Your task to perform on an android device: Go to accessibility settings Image 0: 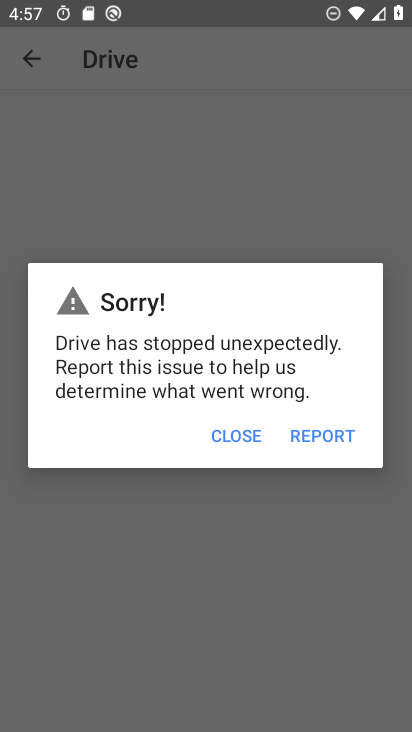
Step 0: click (237, 429)
Your task to perform on an android device: Go to accessibility settings Image 1: 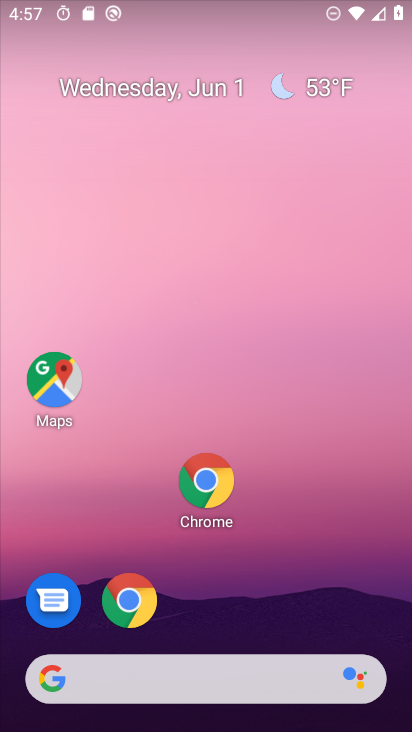
Step 1: drag from (276, 684) to (168, 191)
Your task to perform on an android device: Go to accessibility settings Image 2: 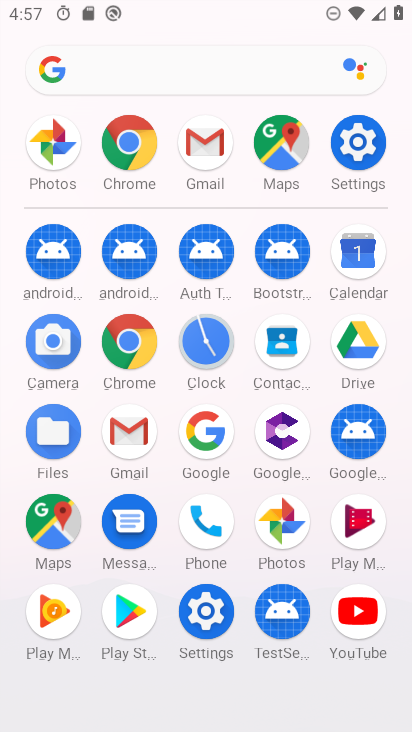
Step 2: click (346, 153)
Your task to perform on an android device: Go to accessibility settings Image 3: 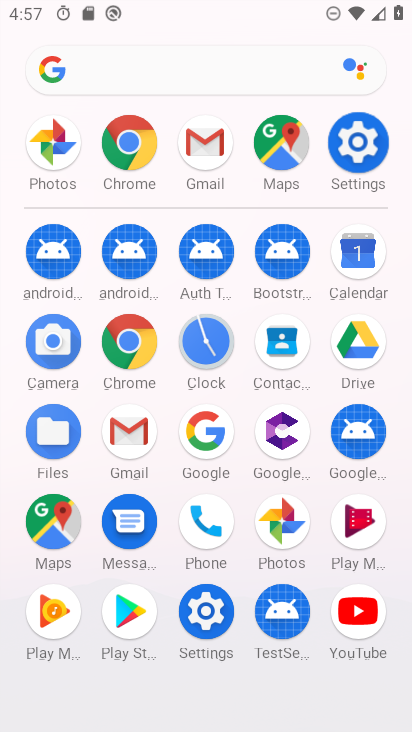
Step 3: click (346, 153)
Your task to perform on an android device: Go to accessibility settings Image 4: 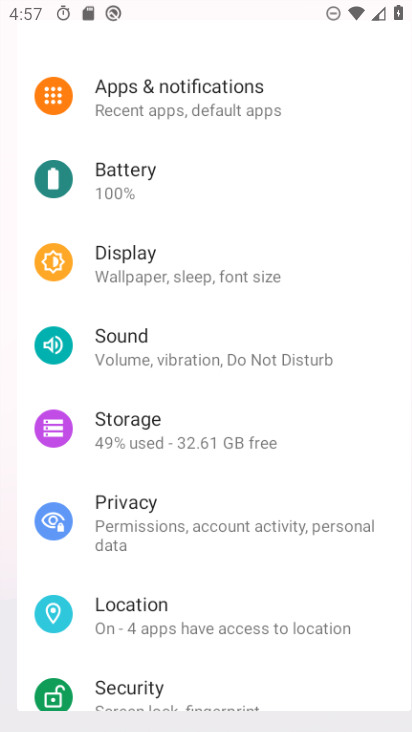
Step 4: click (351, 146)
Your task to perform on an android device: Go to accessibility settings Image 5: 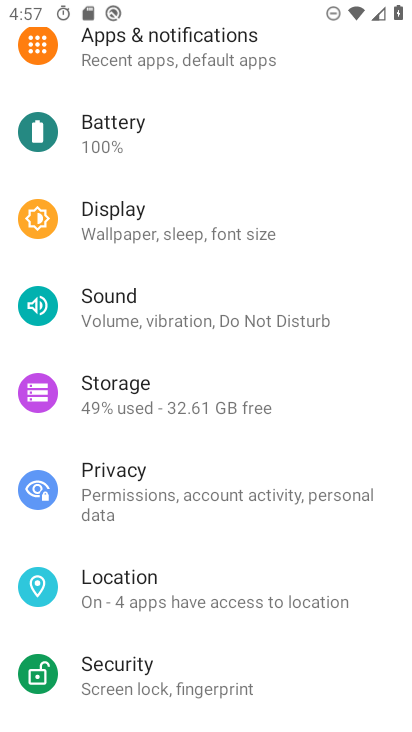
Step 5: click (351, 146)
Your task to perform on an android device: Go to accessibility settings Image 6: 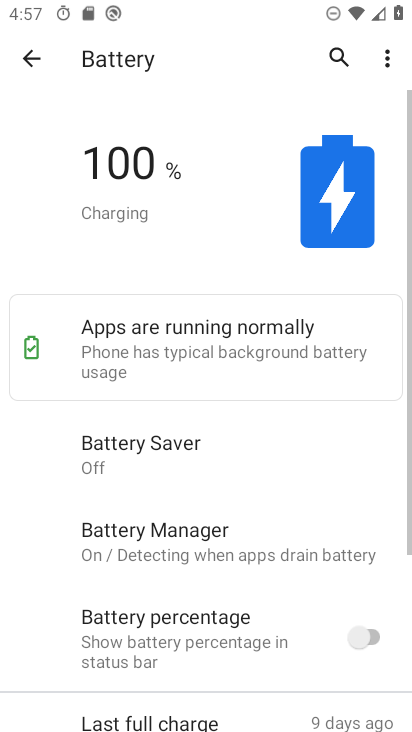
Step 6: click (29, 58)
Your task to perform on an android device: Go to accessibility settings Image 7: 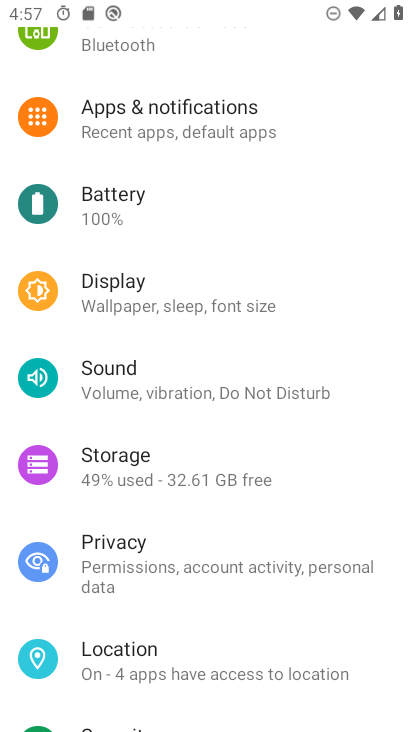
Step 7: click (169, 122)
Your task to perform on an android device: Go to accessibility settings Image 8: 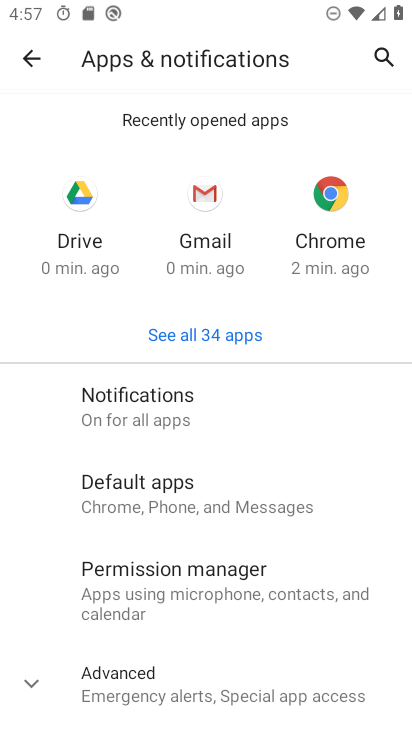
Step 8: click (24, 53)
Your task to perform on an android device: Go to accessibility settings Image 9: 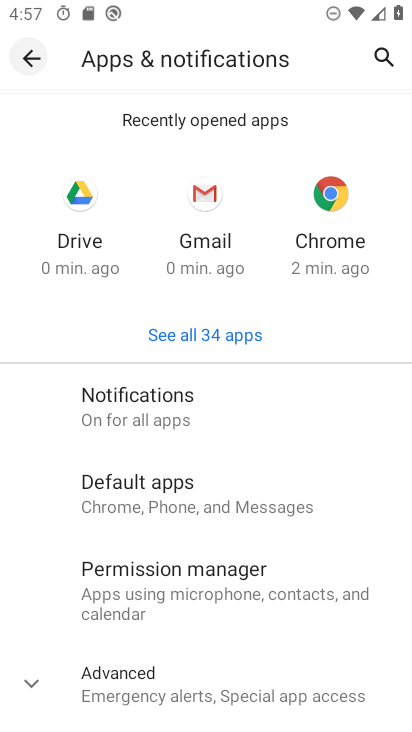
Step 9: click (24, 54)
Your task to perform on an android device: Go to accessibility settings Image 10: 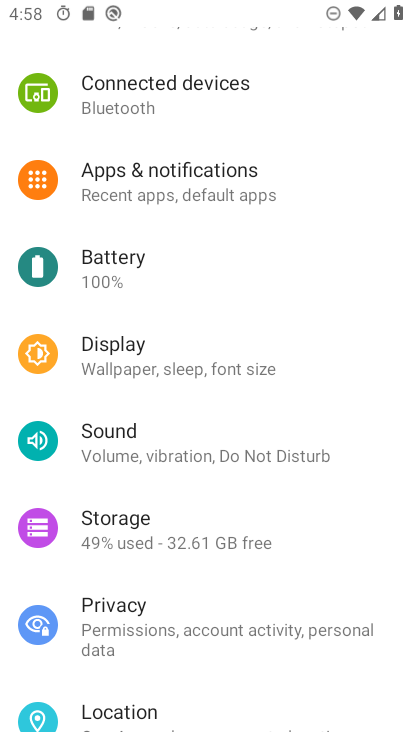
Step 10: drag from (205, 479) to (139, 67)
Your task to perform on an android device: Go to accessibility settings Image 11: 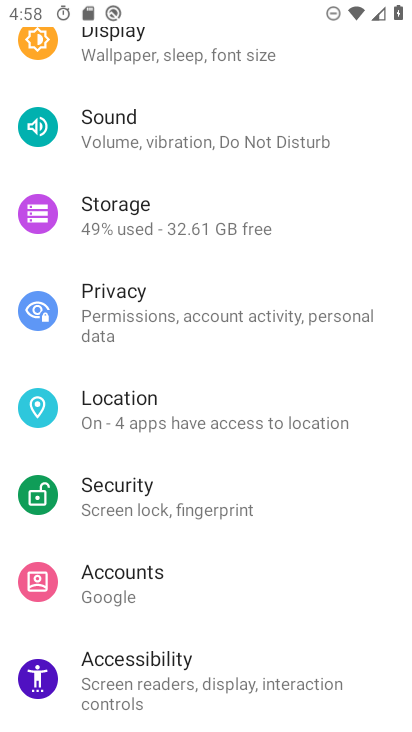
Step 11: drag from (165, 555) to (82, 193)
Your task to perform on an android device: Go to accessibility settings Image 12: 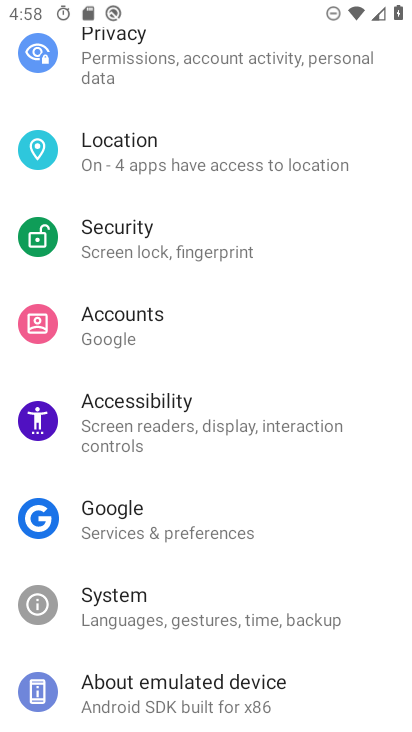
Step 12: drag from (209, 520) to (122, 202)
Your task to perform on an android device: Go to accessibility settings Image 13: 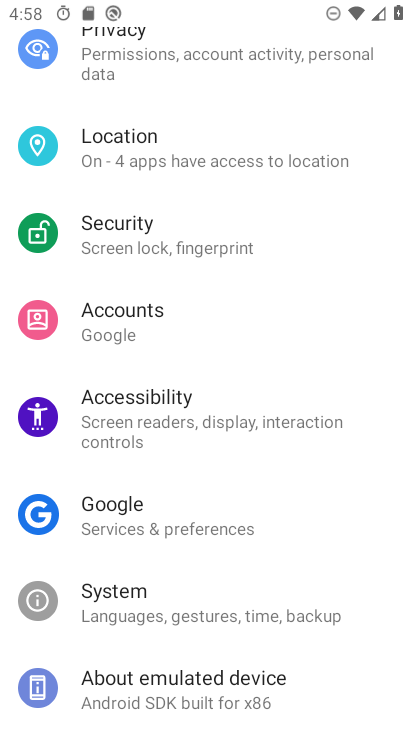
Step 13: click (124, 431)
Your task to perform on an android device: Go to accessibility settings Image 14: 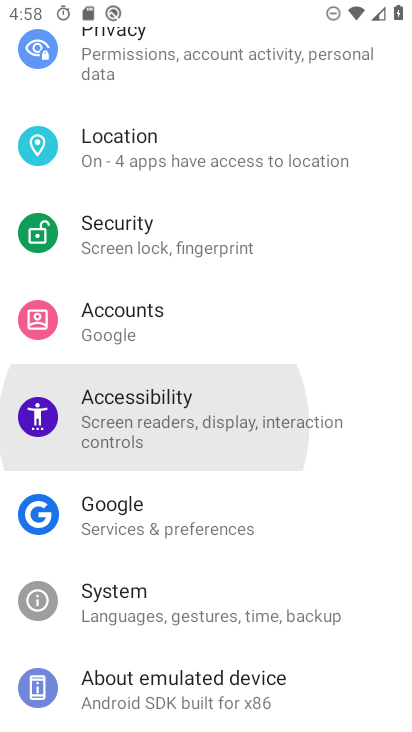
Step 14: click (123, 430)
Your task to perform on an android device: Go to accessibility settings Image 15: 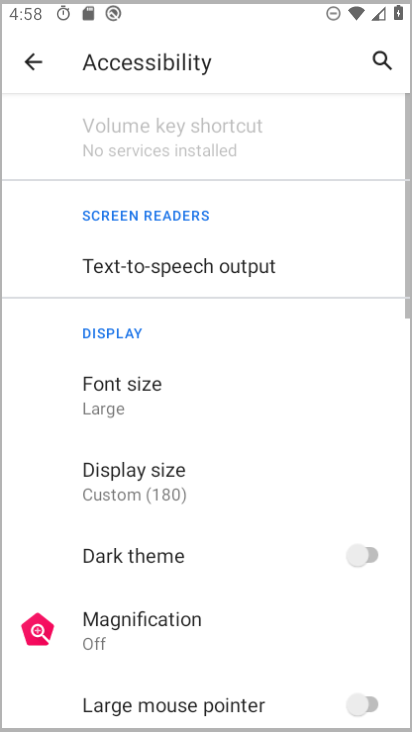
Step 15: click (115, 450)
Your task to perform on an android device: Go to accessibility settings Image 16: 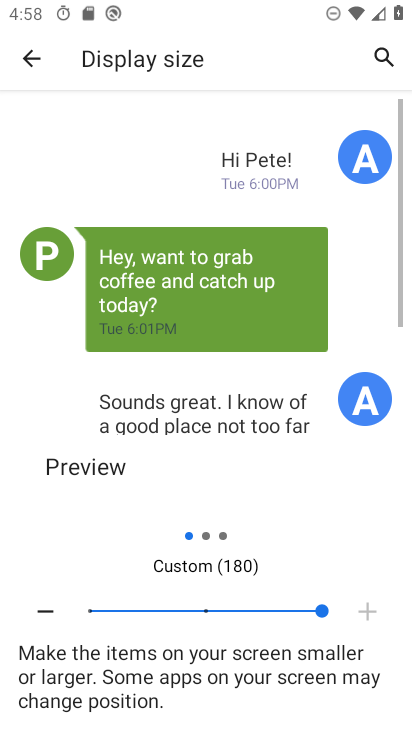
Step 16: drag from (231, 563) to (172, 230)
Your task to perform on an android device: Go to accessibility settings Image 17: 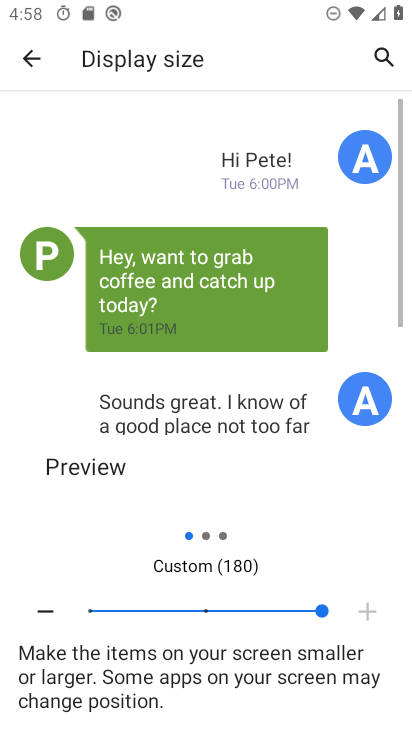
Step 17: drag from (274, 589) to (238, 232)
Your task to perform on an android device: Go to accessibility settings Image 18: 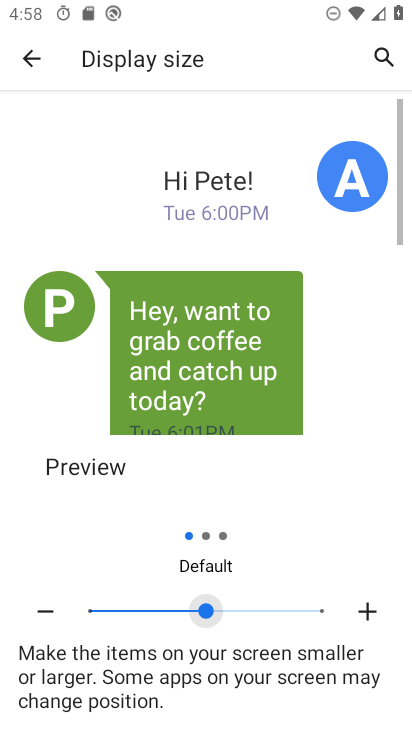
Step 18: click (23, 52)
Your task to perform on an android device: Go to accessibility settings Image 19: 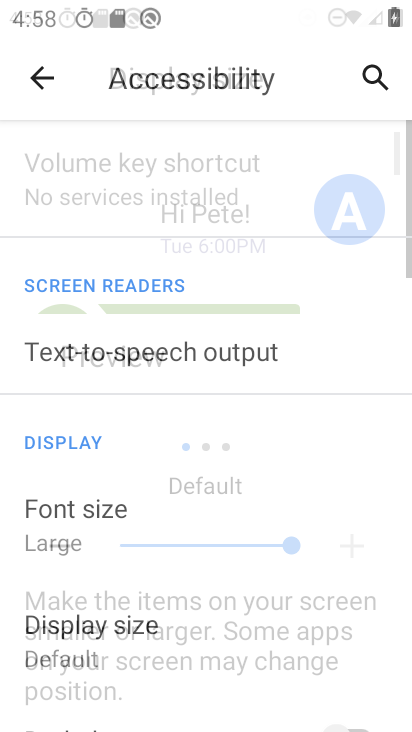
Step 19: task complete